Your task to perform on an android device: Open Wikipedia Image 0: 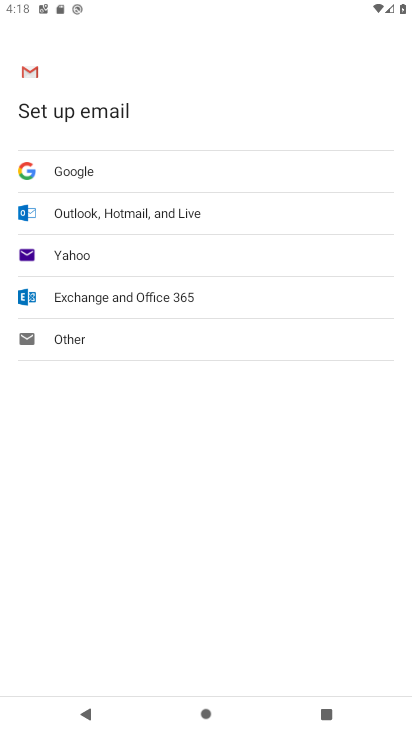
Step 0: press home button
Your task to perform on an android device: Open Wikipedia Image 1: 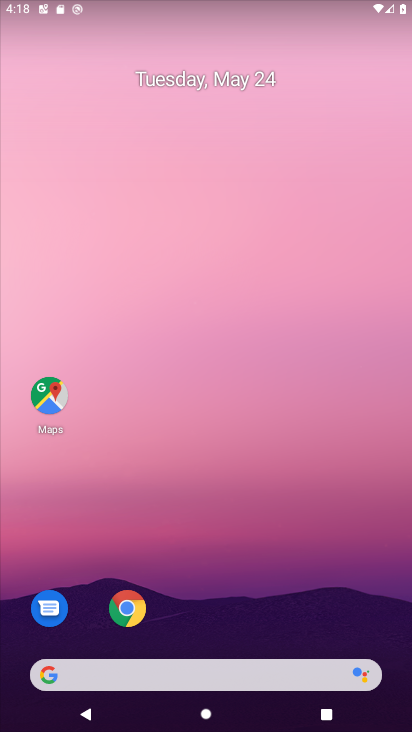
Step 1: click (134, 609)
Your task to perform on an android device: Open Wikipedia Image 2: 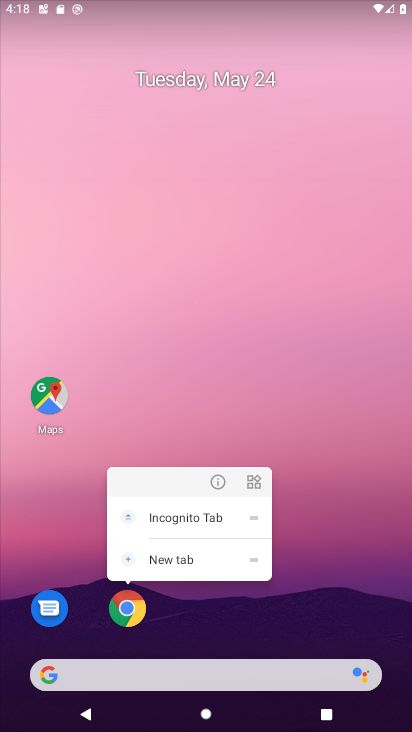
Step 2: click (131, 612)
Your task to perform on an android device: Open Wikipedia Image 3: 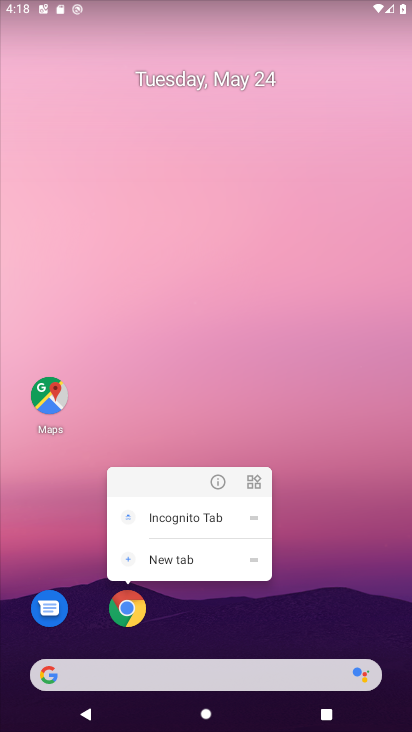
Step 3: click (128, 610)
Your task to perform on an android device: Open Wikipedia Image 4: 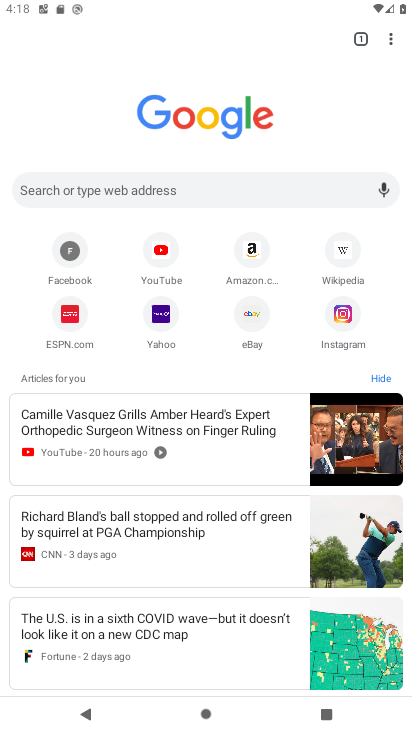
Step 4: click (350, 251)
Your task to perform on an android device: Open Wikipedia Image 5: 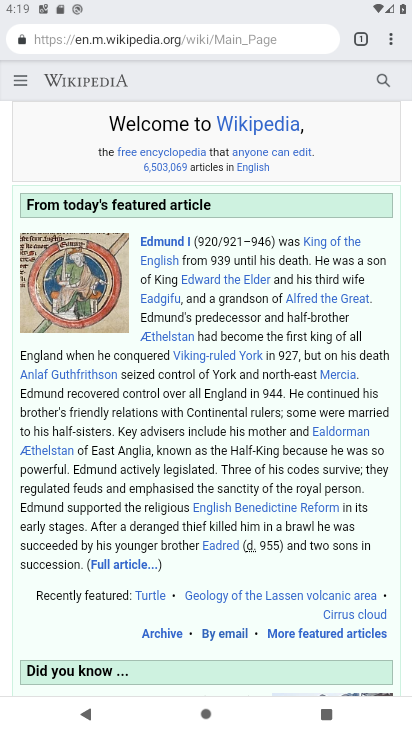
Step 5: task complete